Your task to perform on an android device: Open location settings Image 0: 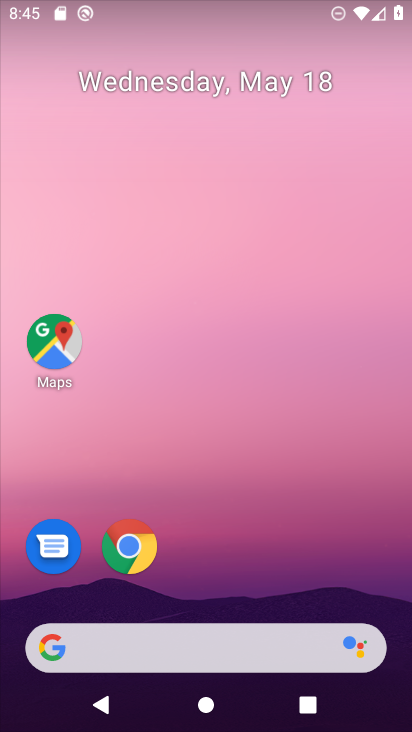
Step 0: drag from (242, 667) to (373, 273)
Your task to perform on an android device: Open location settings Image 1: 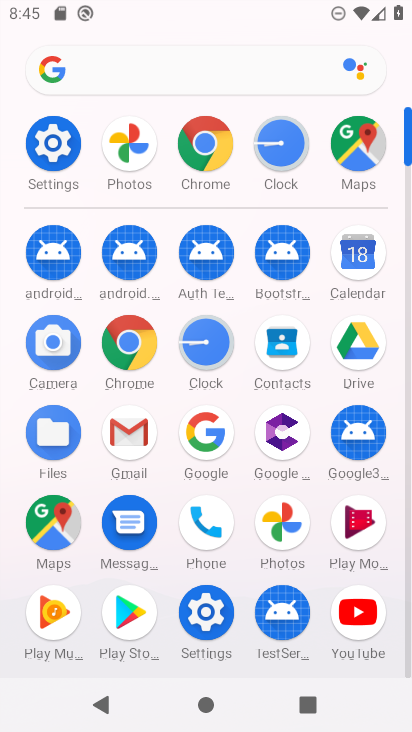
Step 1: click (195, 608)
Your task to perform on an android device: Open location settings Image 2: 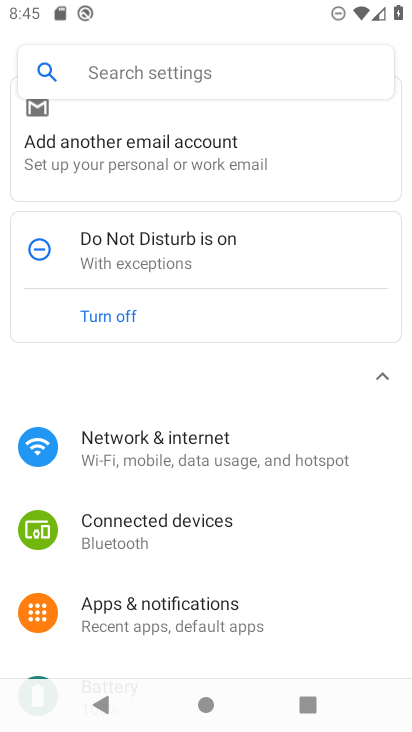
Step 2: click (151, 80)
Your task to perform on an android device: Open location settings Image 3: 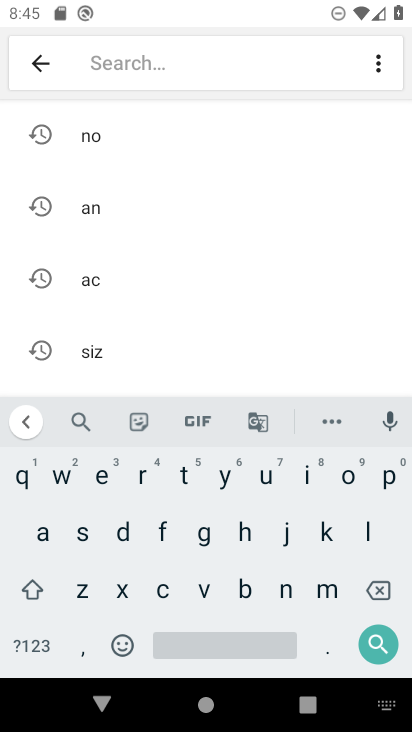
Step 3: click (371, 530)
Your task to perform on an android device: Open location settings Image 4: 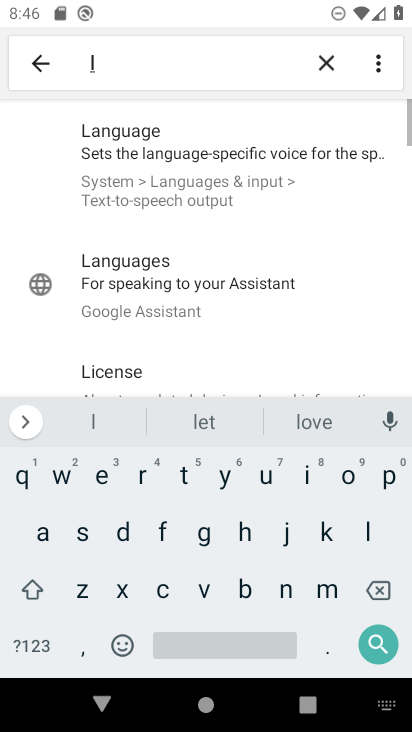
Step 4: click (347, 484)
Your task to perform on an android device: Open location settings Image 5: 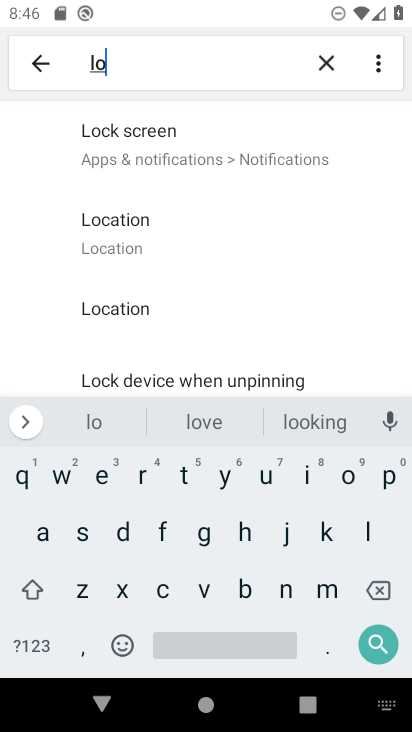
Step 5: click (135, 216)
Your task to perform on an android device: Open location settings Image 6: 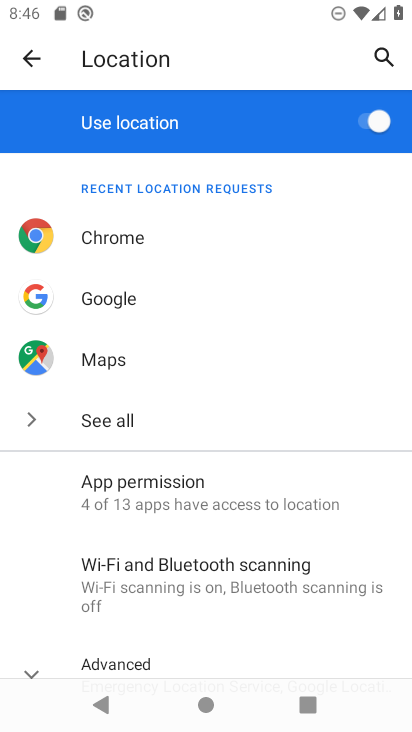
Step 6: task complete